Your task to perform on an android device: turn off airplane mode Image 0: 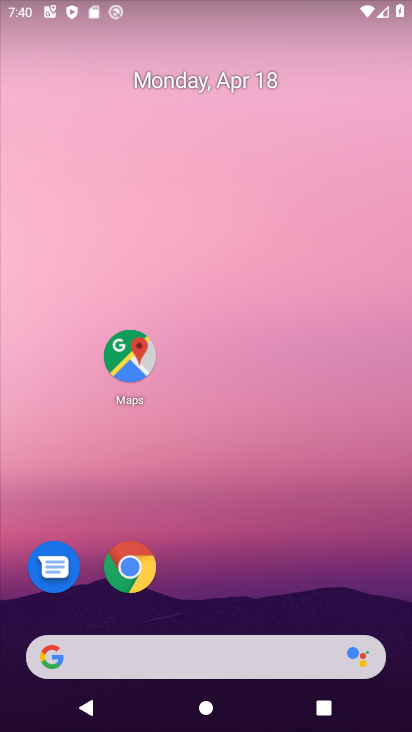
Step 0: drag from (292, 673) to (321, 85)
Your task to perform on an android device: turn off airplane mode Image 1: 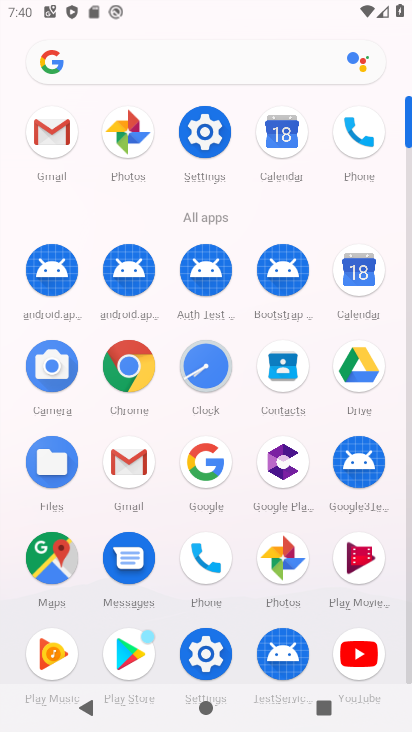
Step 1: click (205, 642)
Your task to perform on an android device: turn off airplane mode Image 2: 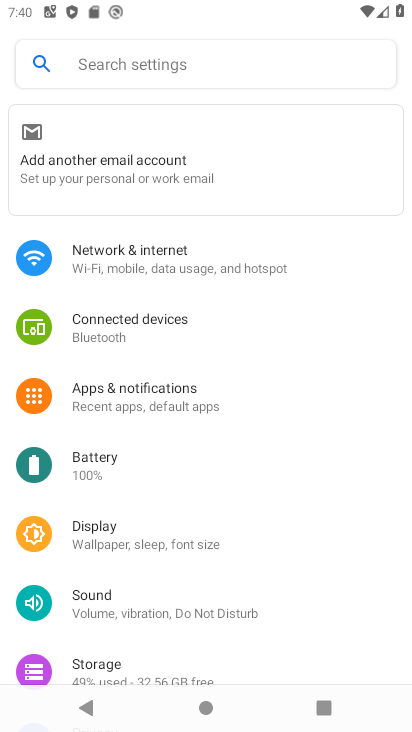
Step 2: click (181, 242)
Your task to perform on an android device: turn off airplane mode Image 3: 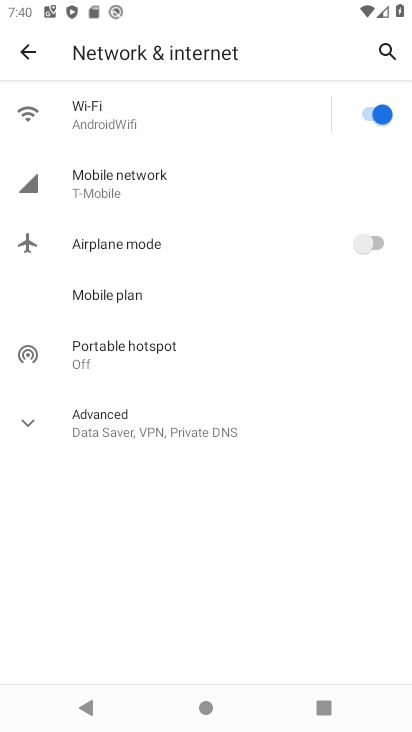
Step 3: click (136, 144)
Your task to perform on an android device: turn off airplane mode Image 4: 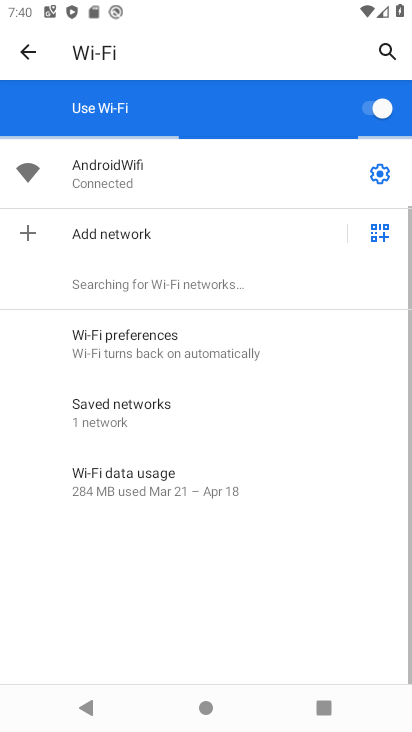
Step 4: click (49, 45)
Your task to perform on an android device: turn off airplane mode Image 5: 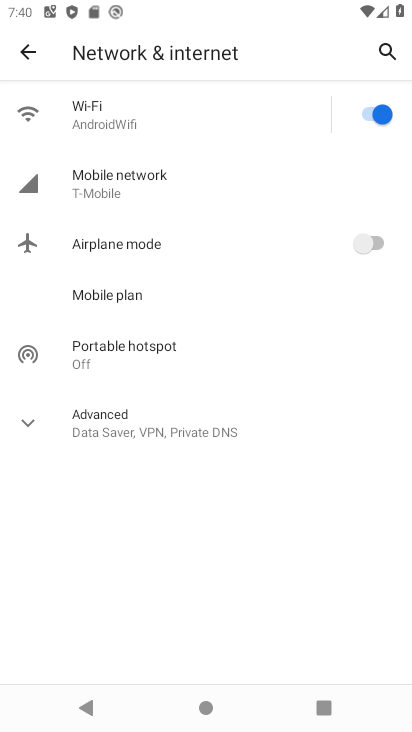
Step 5: click (378, 234)
Your task to perform on an android device: turn off airplane mode Image 6: 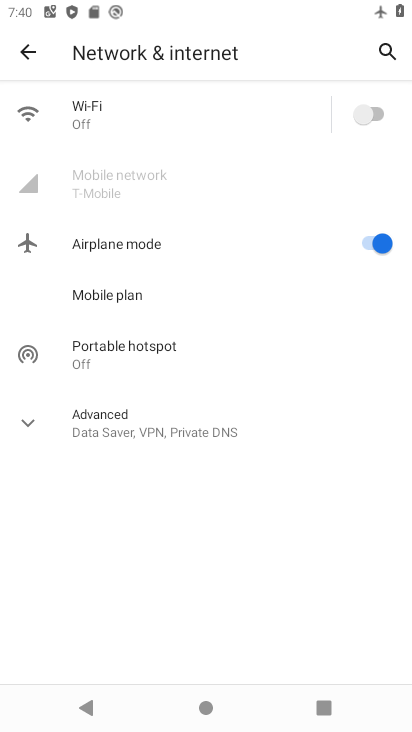
Step 6: click (377, 238)
Your task to perform on an android device: turn off airplane mode Image 7: 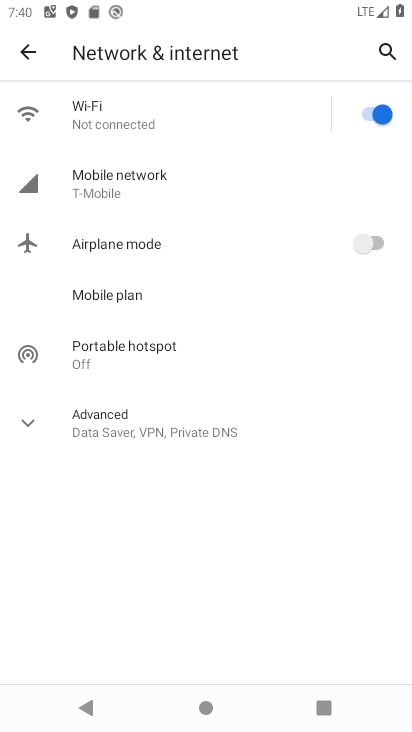
Step 7: task complete